Your task to perform on an android device: Open Google Maps Image 0: 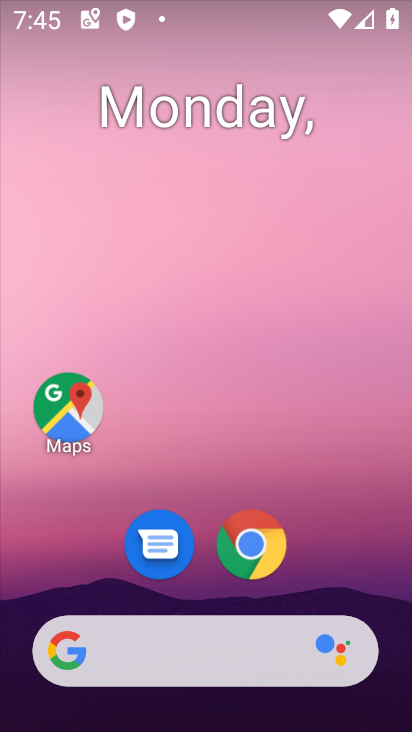
Step 0: click (72, 404)
Your task to perform on an android device: Open Google Maps Image 1: 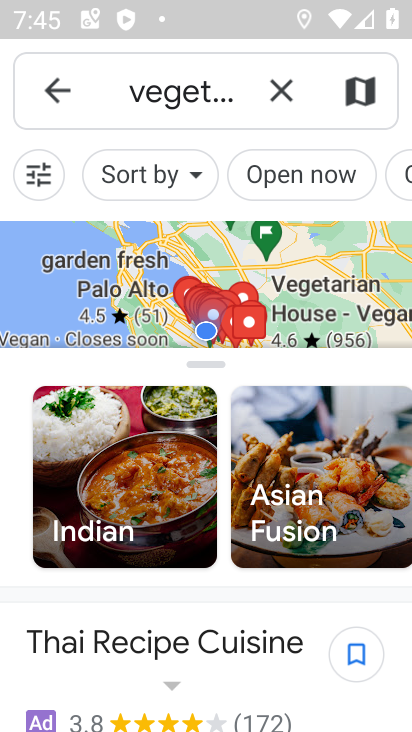
Step 1: click (56, 94)
Your task to perform on an android device: Open Google Maps Image 2: 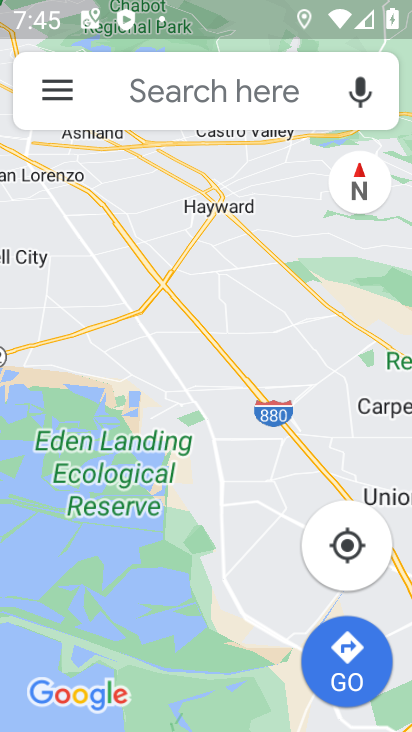
Step 2: task complete